Your task to perform on an android device: Is it going to rain tomorrow? Image 0: 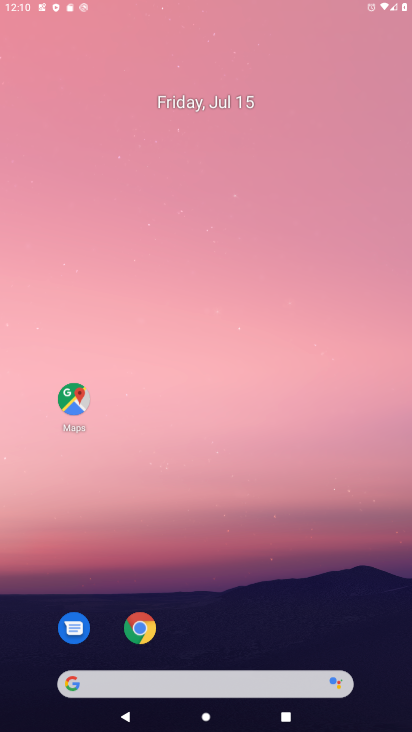
Step 0: press home button
Your task to perform on an android device: Is it going to rain tomorrow? Image 1: 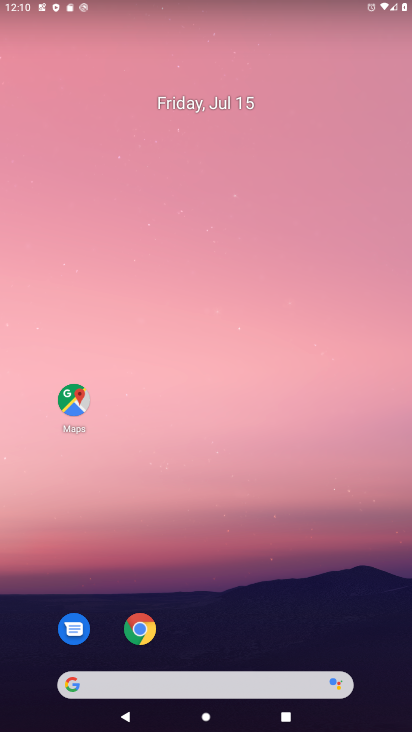
Step 1: click (78, 687)
Your task to perform on an android device: Is it going to rain tomorrow? Image 2: 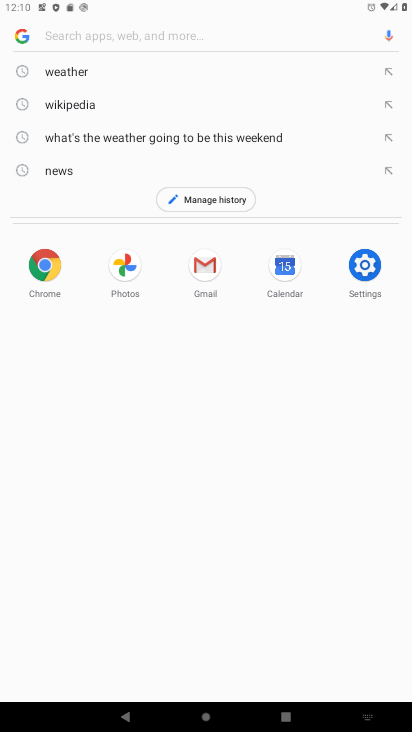
Step 2: type "rain tomorrow?"
Your task to perform on an android device: Is it going to rain tomorrow? Image 3: 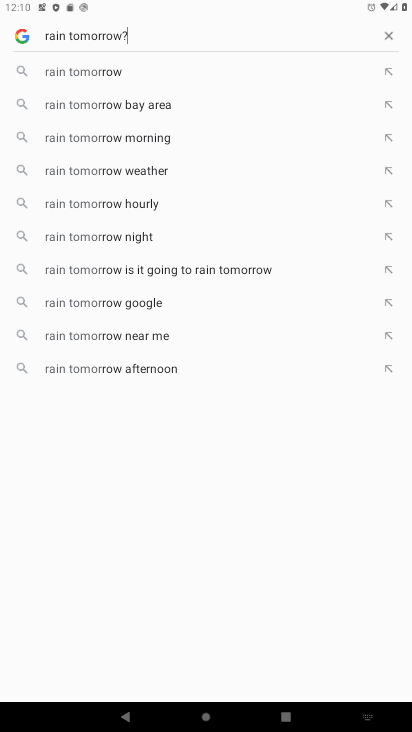
Step 3: press enter
Your task to perform on an android device: Is it going to rain tomorrow? Image 4: 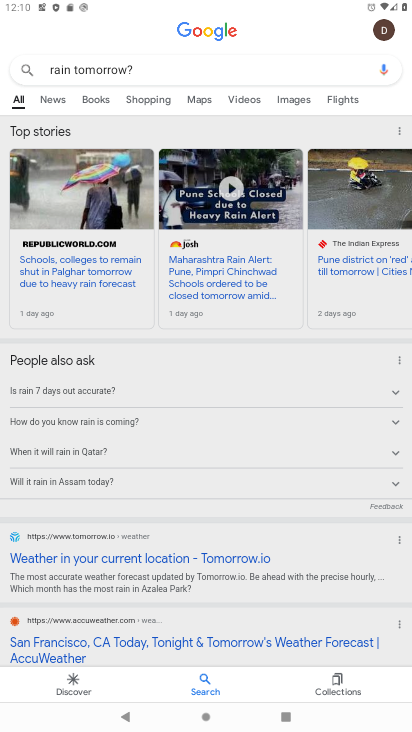
Step 4: task complete